Your task to perform on an android device: Toggle the flashlight Image 0: 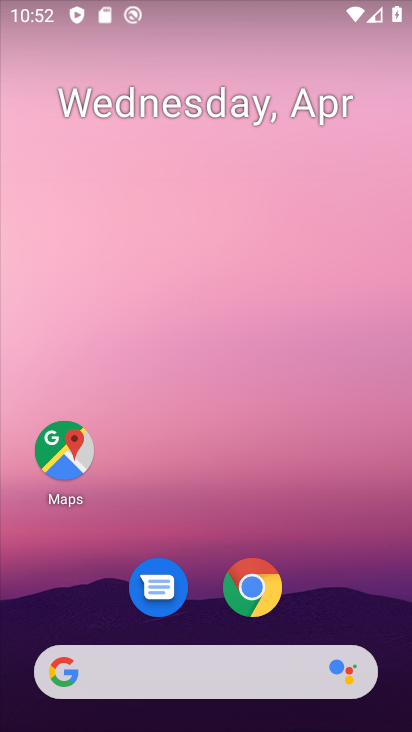
Step 0: drag from (207, 576) to (332, 12)
Your task to perform on an android device: Toggle the flashlight Image 1: 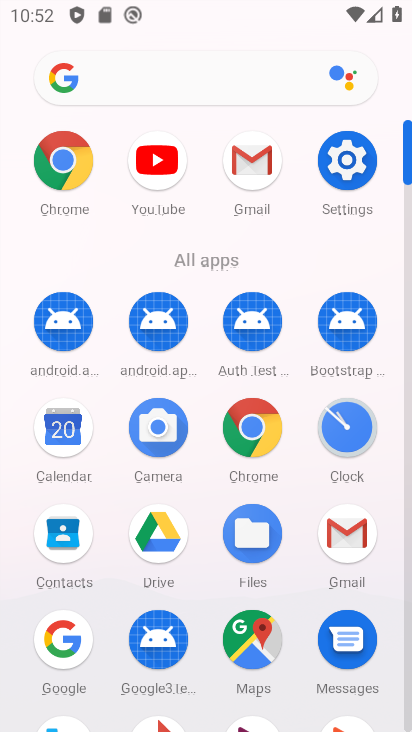
Step 1: click (342, 150)
Your task to perform on an android device: Toggle the flashlight Image 2: 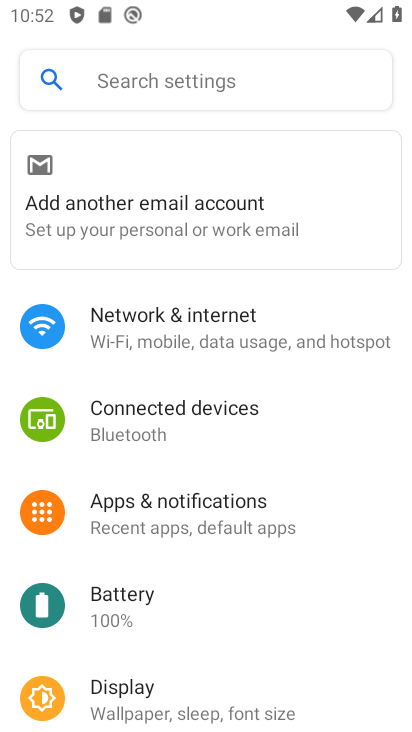
Step 2: click (126, 75)
Your task to perform on an android device: Toggle the flashlight Image 3: 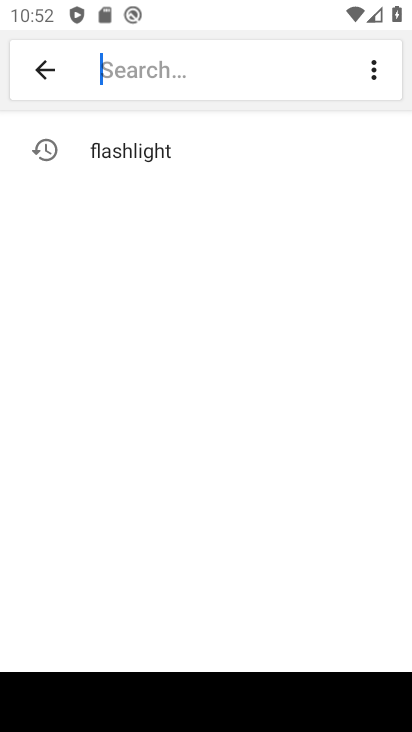
Step 3: type "flashlight"
Your task to perform on an android device: Toggle the flashlight Image 4: 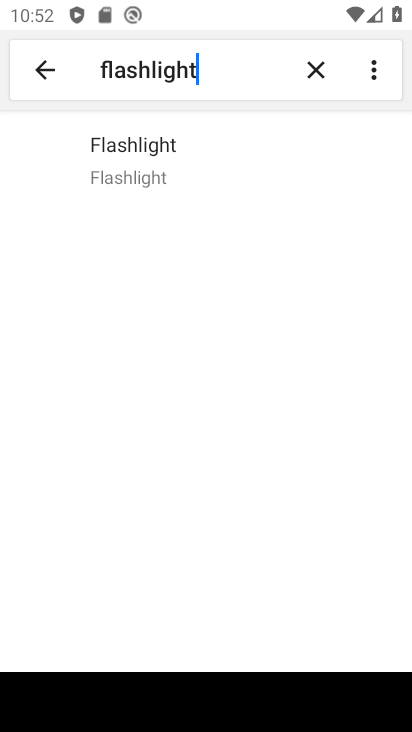
Step 4: click (184, 169)
Your task to perform on an android device: Toggle the flashlight Image 5: 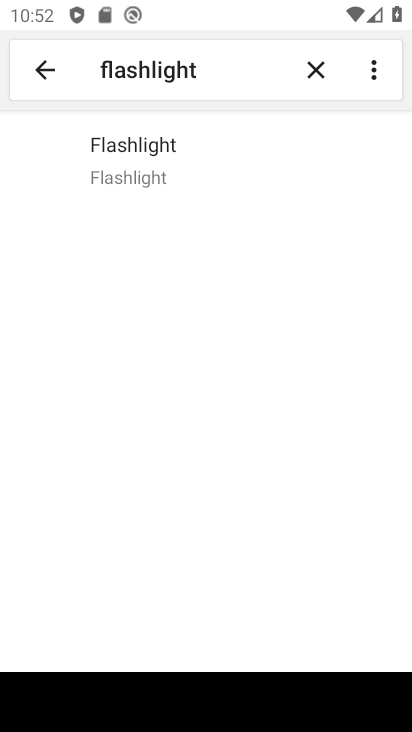
Step 5: click (169, 173)
Your task to perform on an android device: Toggle the flashlight Image 6: 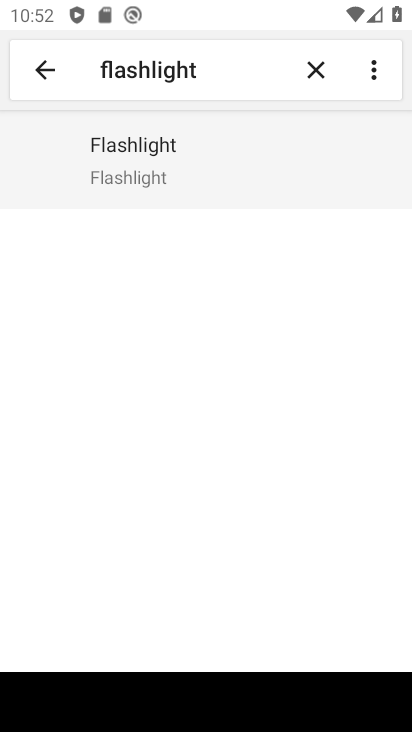
Step 6: task complete